Your task to perform on an android device: Go to eBay Image 0: 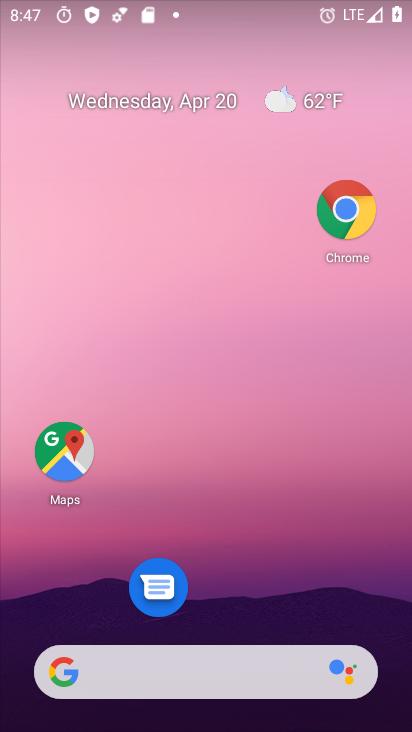
Step 0: click (340, 208)
Your task to perform on an android device: Go to eBay Image 1: 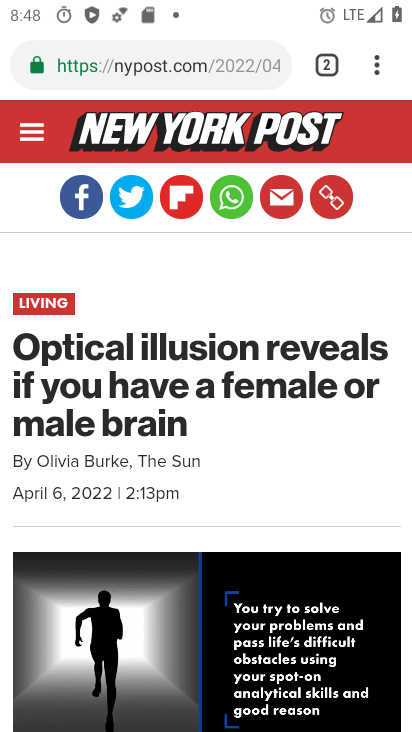
Step 1: click (376, 73)
Your task to perform on an android device: Go to eBay Image 2: 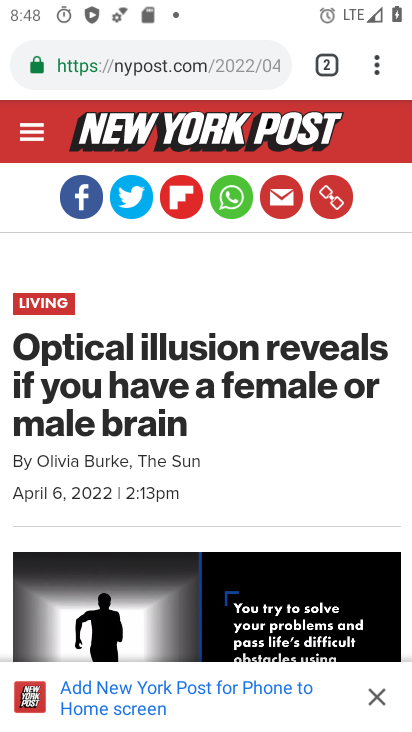
Step 2: click (336, 61)
Your task to perform on an android device: Go to eBay Image 3: 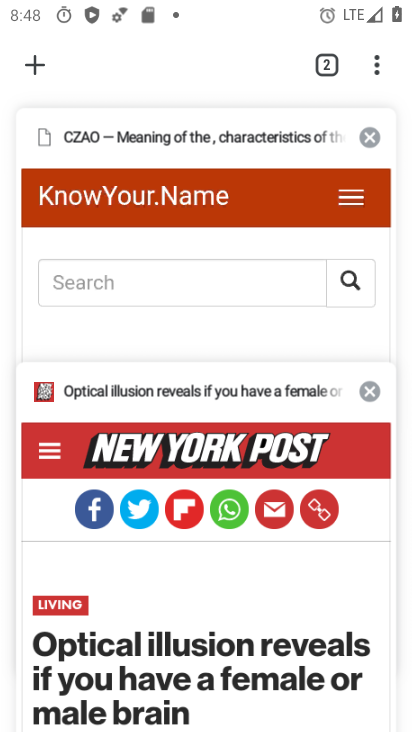
Step 3: click (51, 63)
Your task to perform on an android device: Go to eBay Image 4: 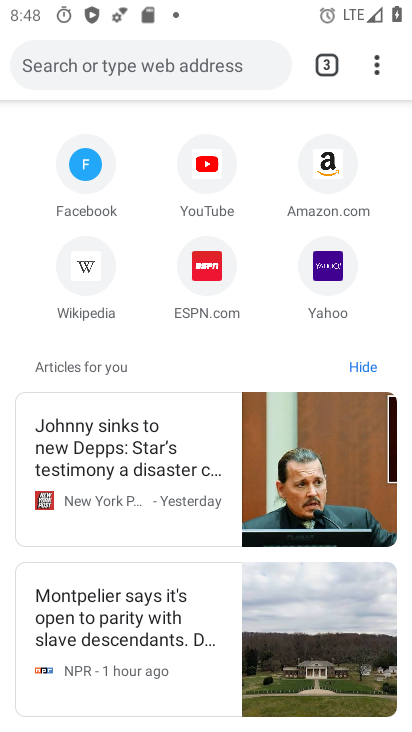
Step 4: click (156, 59)
Your task to perform on an android device: Go to eBay Image 5: 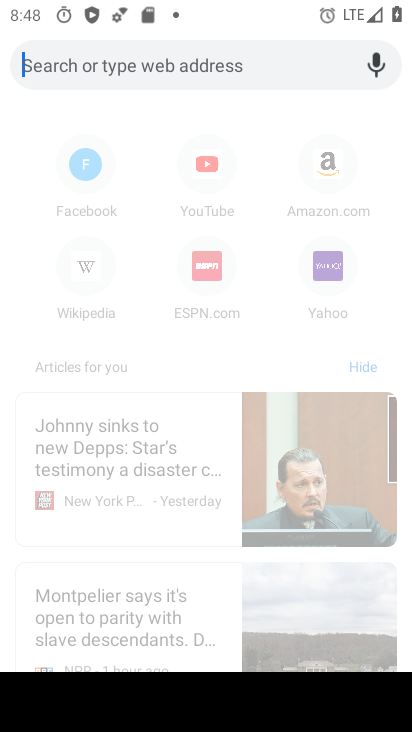
Step 5: type "ebay"
Your task to perform on an android device: Go to eBay Image 6: 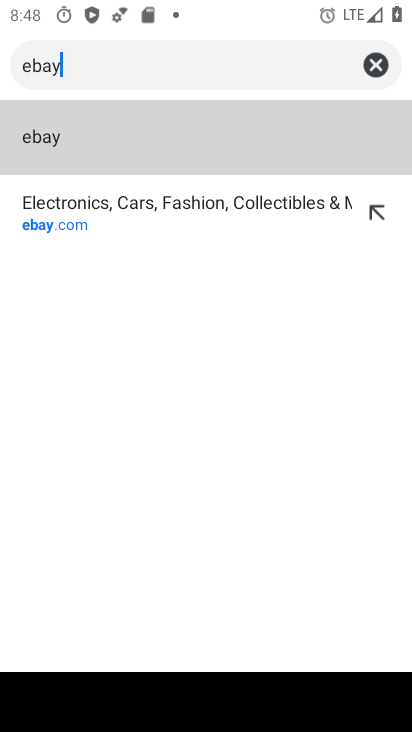
Step 6: click (192, 135)
Your task to perform on an android device: Go to eBay Image 7: 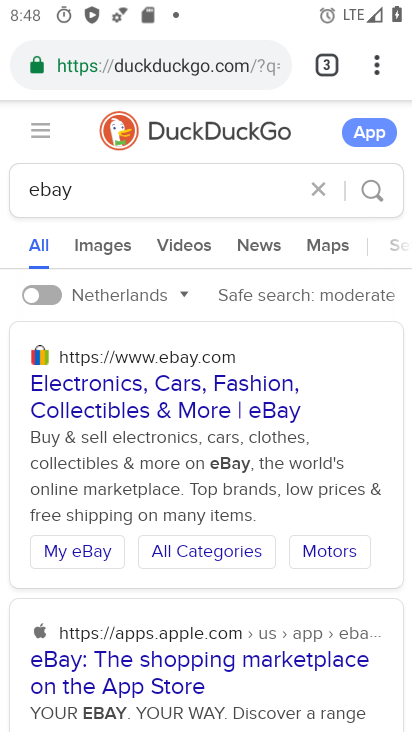
Step 7: task complete